Your task to perform on an android device: change the upload size in google photos Image 0: 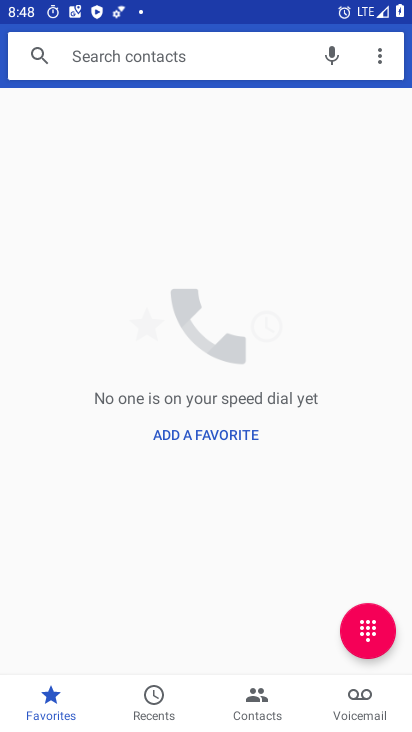
Step 0: press home button
Your task to perform on an android device: change the upload size in google photos Image 1: 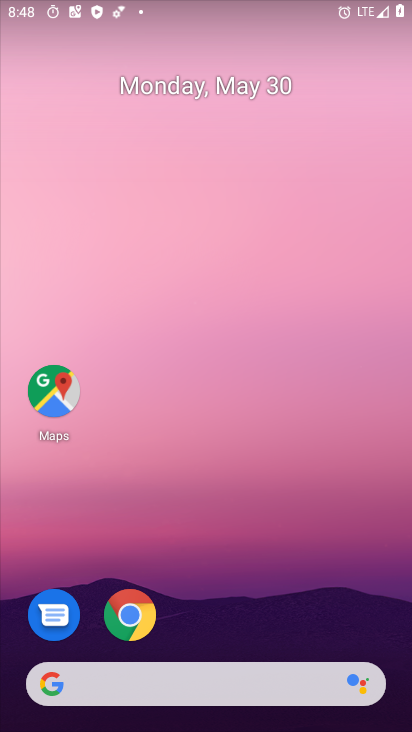
Step 1: drag from (280, 548) to (233, 57)
Your task to perform on an android device: change the upload size in google photos Image 2: 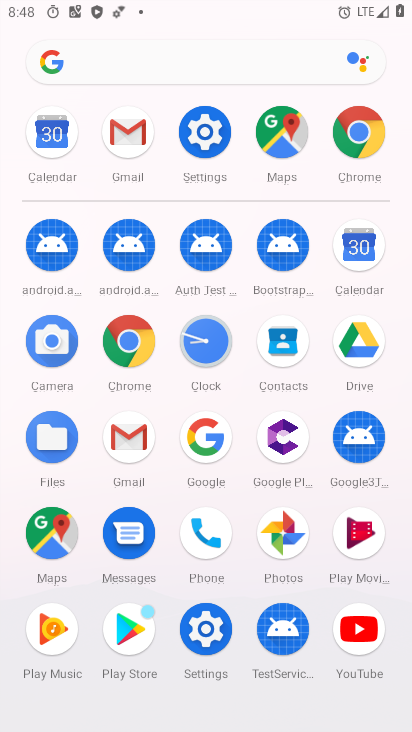
Step 2: click (284, 530)
Your task to perform on an android device: change the upload size in google photos Image 3: 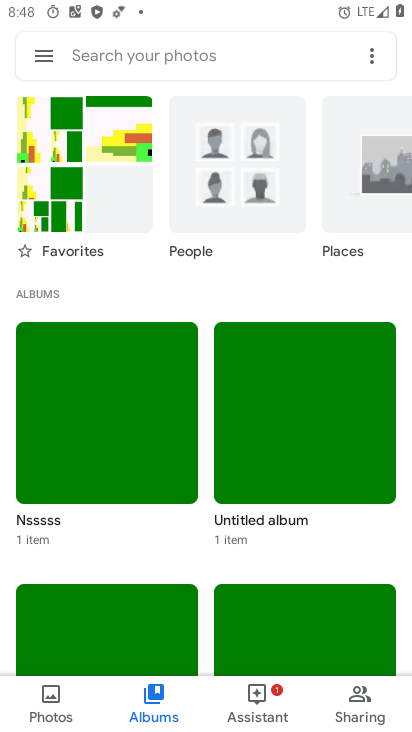
Step 3: drag from (190, 262) to (274, 628)
Your task to perform on an android device: change the upload size in google photos Image 4: 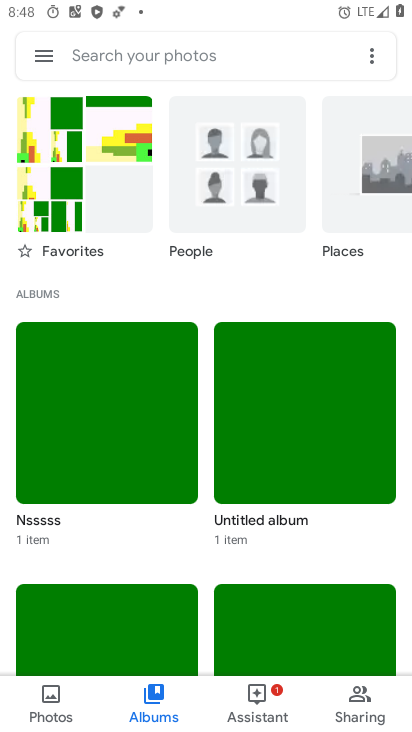
Step 4: click (39, 56)
Your task to perform on an android device: change the upload size in google photos Image 5: 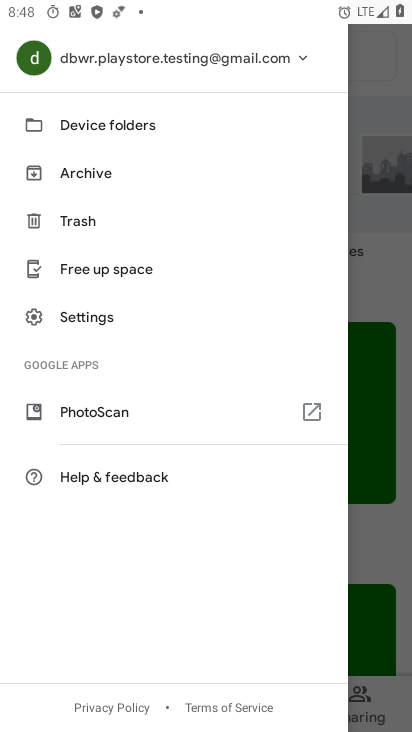
Step 5: click (97, 311)
Your task to perform on an android device: change the upload size in google photos Image 6: 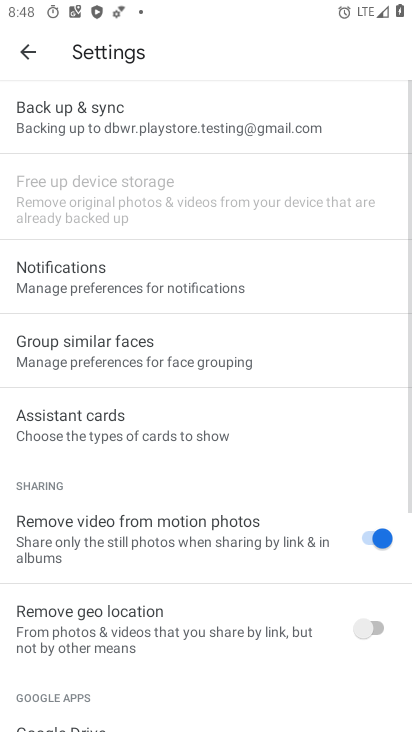
Step 6: click (125, 121)
Your task to perform on an android device: change the upload size in google photos Image 7: 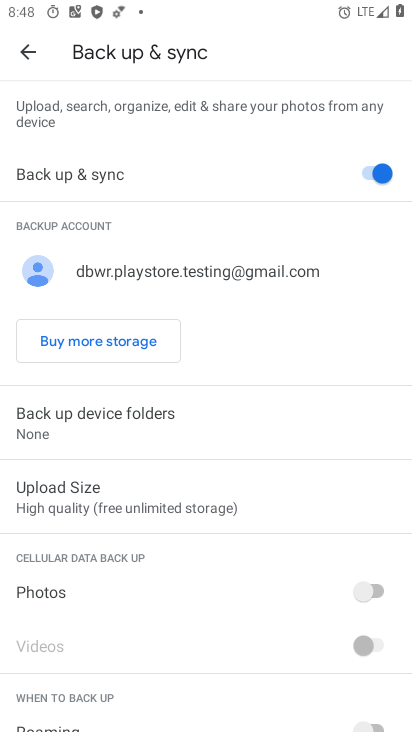
Step 7: task complete